Your task to perform on an android device: create a new album in the google photos Image 0: 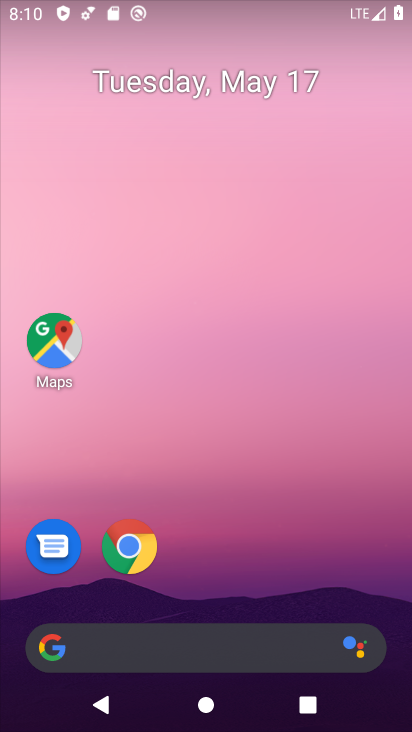
Step 0: drag from (291, 580) to (137, 24)
Your task to perform on an android device: create a new album in the google photos Image 1: 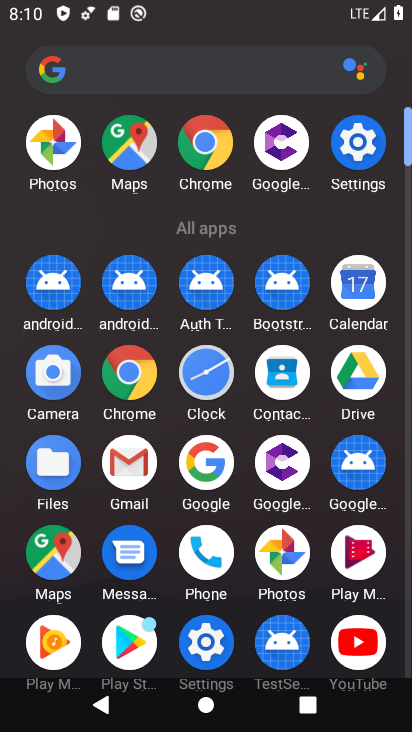
Step 1: click (277, 538)
Your task to perform on an android device: create a new album in the google photos Image 2: 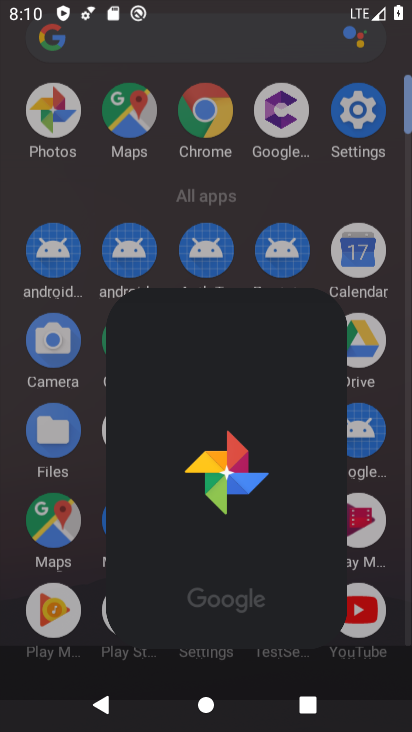
Step 2: click (278, 538)
Your task to perform on an android device: create a new album in the google photos Image 3: 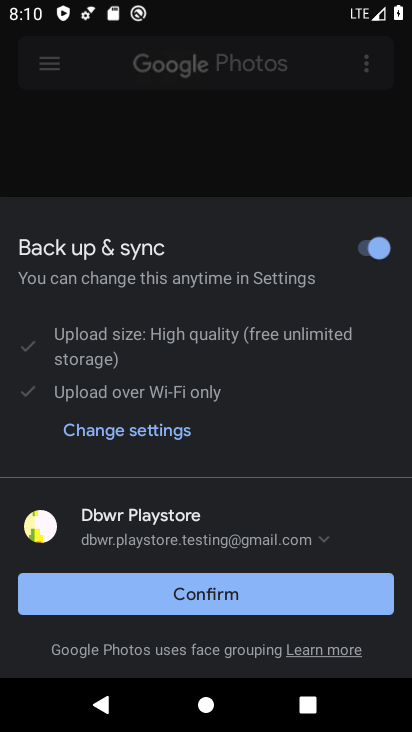
Step 3: click (208, 577)
Your task to perform on an android device: create a new album in the google photos Image 4: 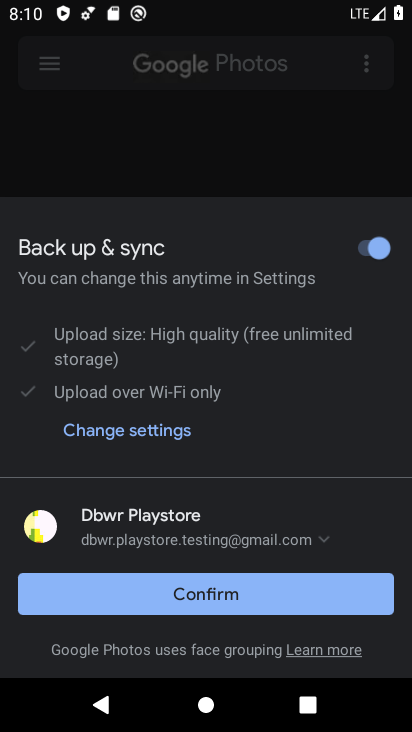
Step 4: click (211, 579)
Your task to perform on an android device: create a new album in the google photos Image 5: 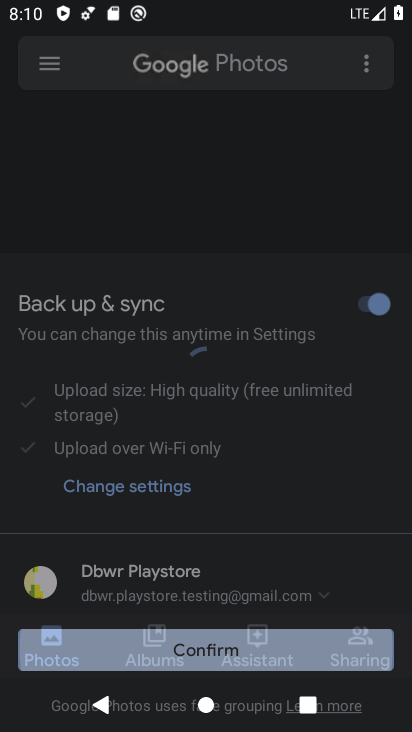
Step 5: click (211, 580)
Your task to perform on an android device: create a new album in the google photos Image 6: 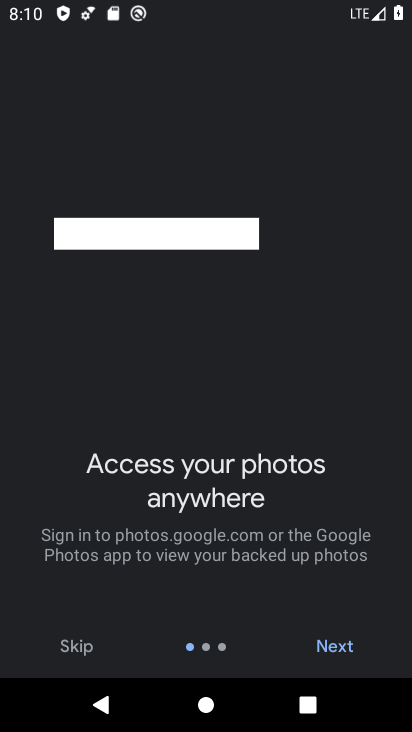
Step 6: click (331, 645)
Your task to perform on an android device: create a new album in the google photos Image 7: 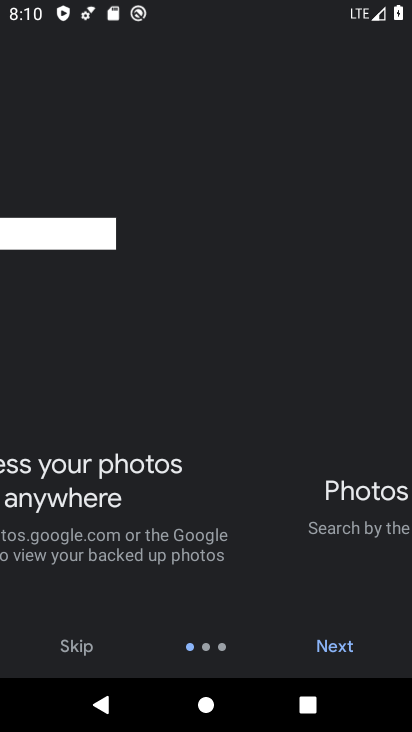
Step 7: click (330, 647)
Your task to perform on an android device: create a new album in the google photos Image 8: 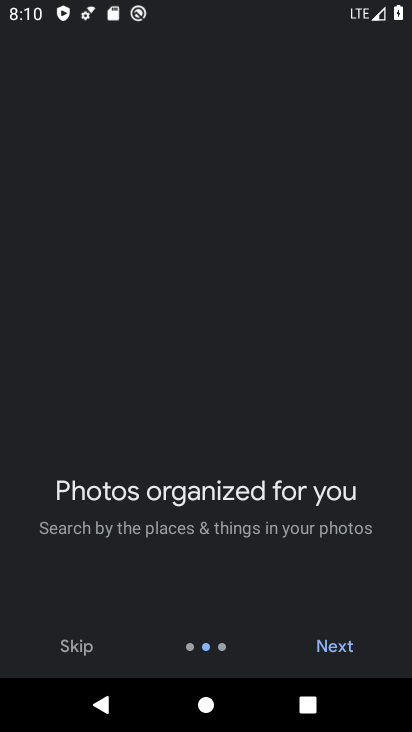
Step 8: click (330, 647)
Your task to perform on an android device: create a new album in the google photos Image 9: 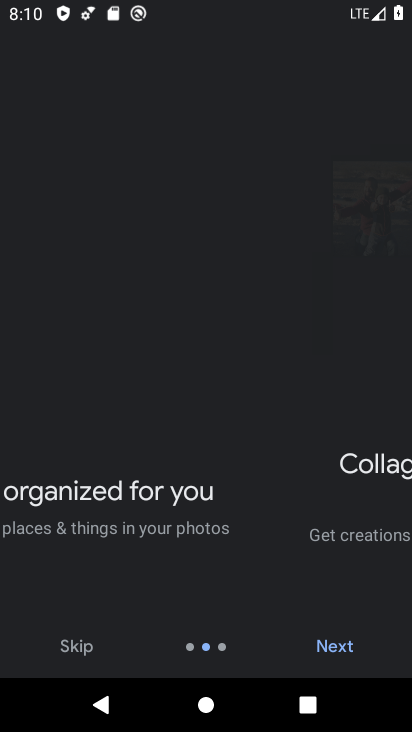
Step 9: click (331, 648)
Your task to perform on an android device: create a new album in the google photos Image 10: 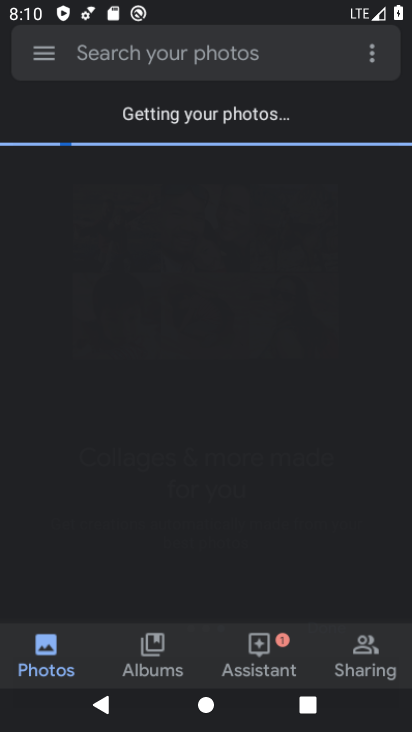
Step 10: click (332, 635)
Your task to perform on an android device: create a new album in the google photos Image 11: 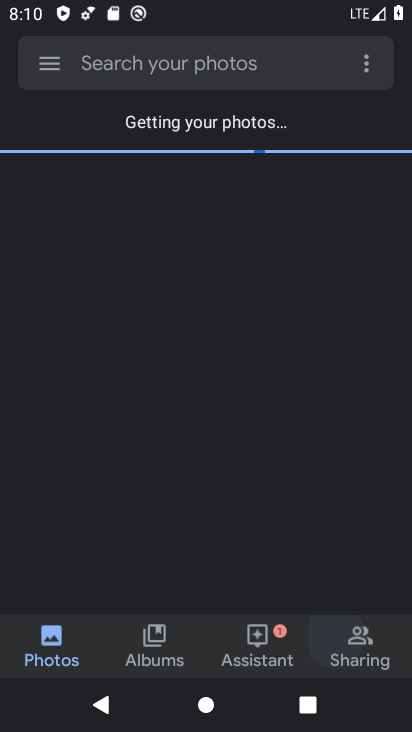
Step 11: click (331, 637)
Your task to perform on an android device: create a new album in the google photos Image 12: 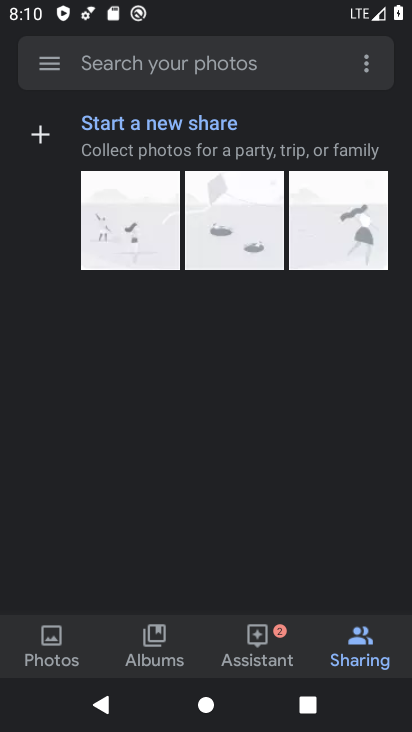
Step 12: task complete